Your task to perform on an android device: turn on bluetooth scan Image 0: 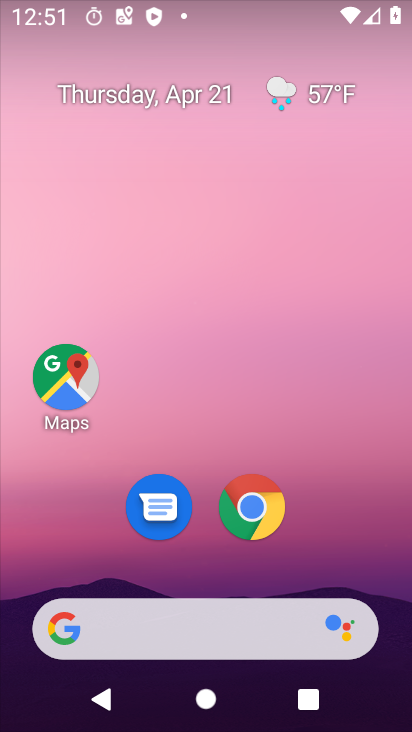
Step 0: drag from (355, 372) to (401, 114)
Your task to perform on an android device: turn on bluetooth scan Image 1: 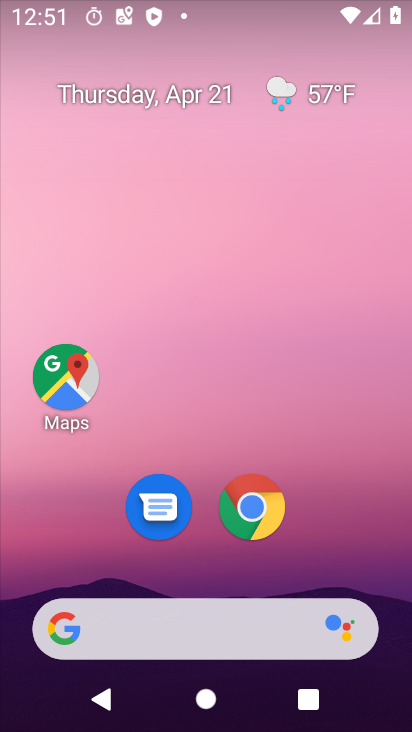
Step 1: drag from (238, 504) to (315, 0)
Your task to perform on an android device: turn on bluetooth scan Image 2: 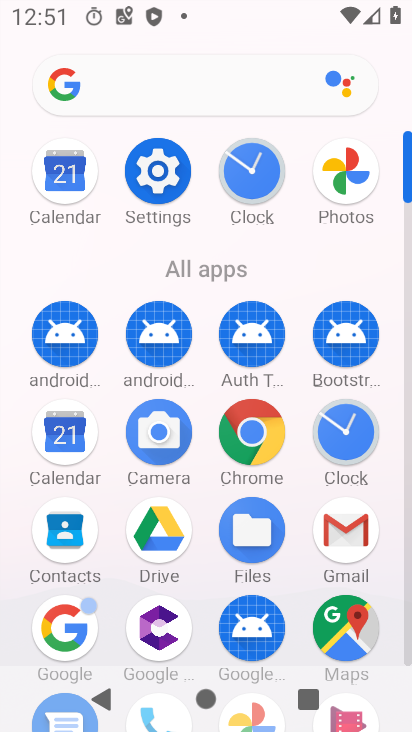
Step 2: click (155, 163)
Your task to perform on an android device: turn on bluetooth scan Image 3: 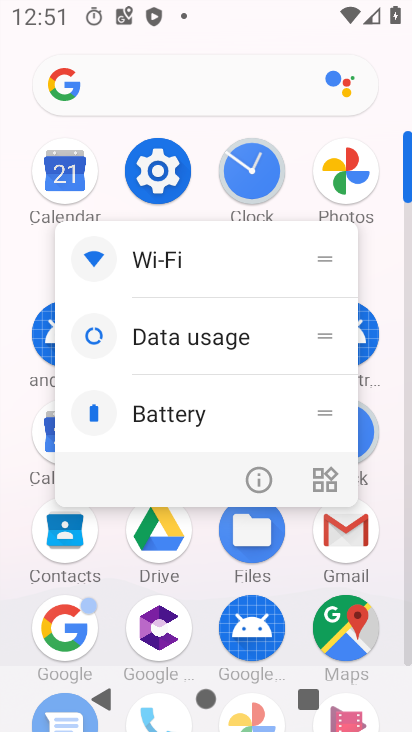
Step 3: click (262, 481)
Your task to perform on an android device: turn on bluetooth scan Image 4: 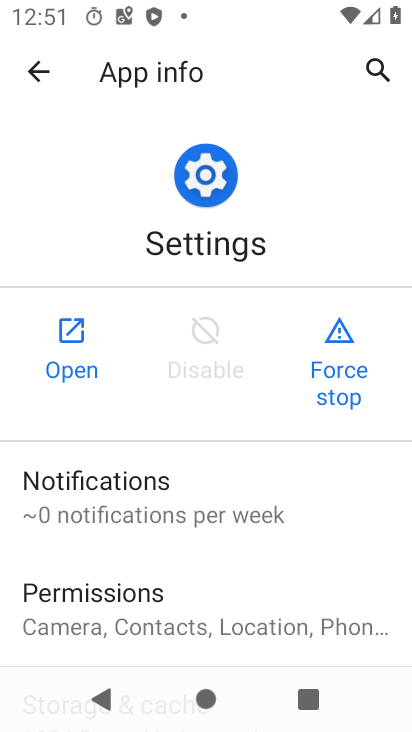
Step 4: click (78, 335)
Your task to perform on an android device: turn on bluetooth scan Image 5: 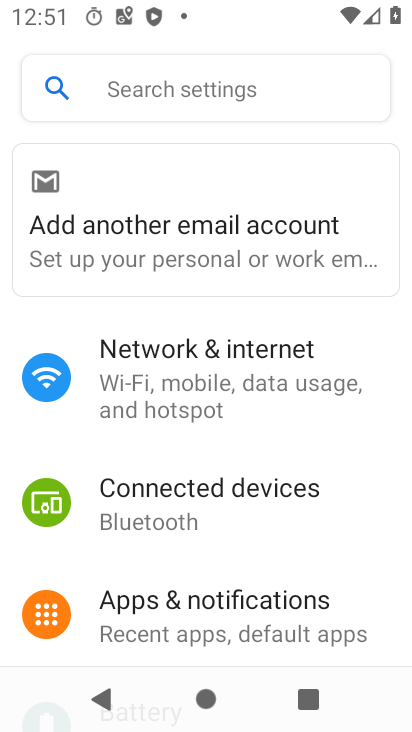
Step 5: click (245, 100)
Your task to perform on an android device: turn on bluetooth scan Image 6: 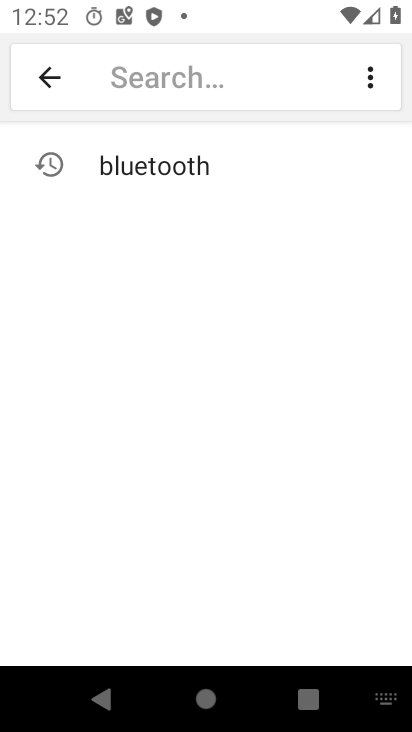
Step 6: click (205, 149)
Your task to perform on an android device: turn on bluetooth scan Image 7: 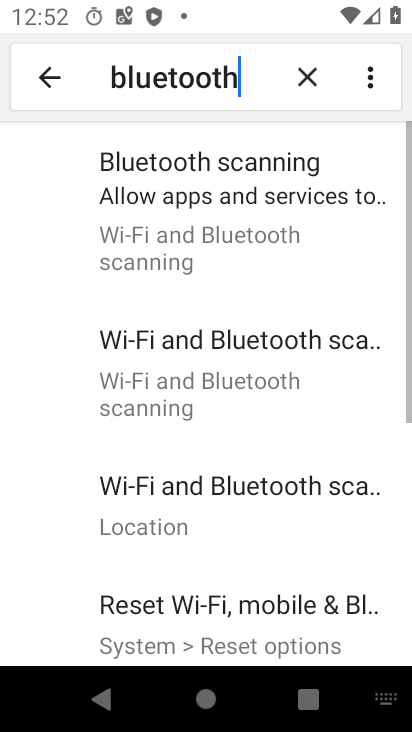
Step 7: click (224, 215)
Your task to perform on an android device: turn on bluetooth scan Image 8: 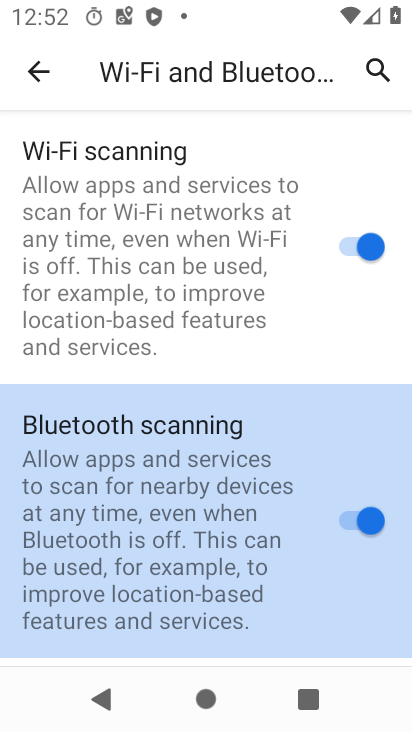
Step 8: task complete